Your task to perform on an android device: Toggle the flashlight Image 0: 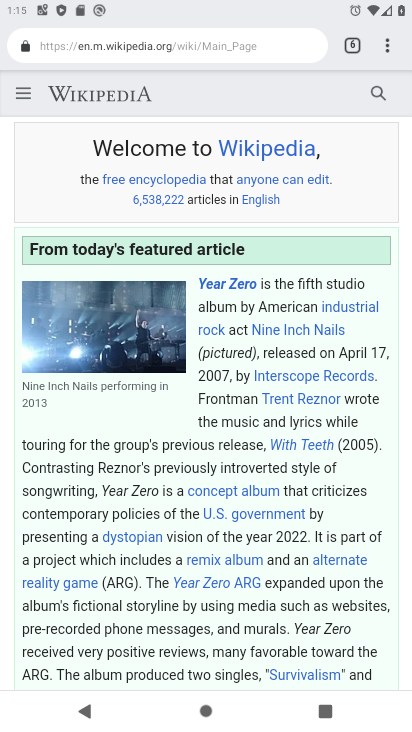
Step 0: click (253, 577)
Your task to perform on an android device: Toggle the flashlight Image 1: 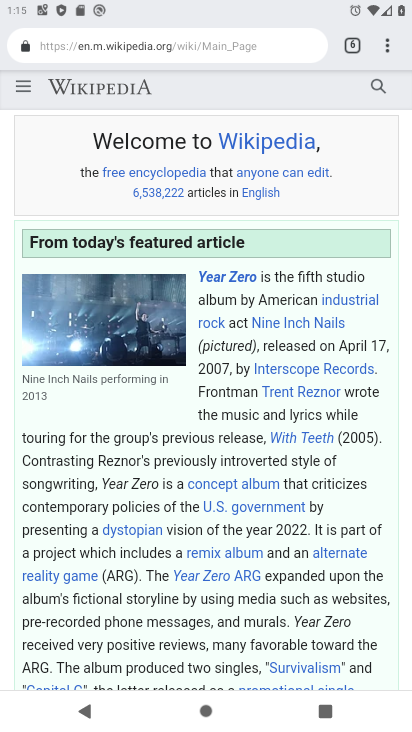
Step 1: press home button
Your task to perform on an android device: Toggle the flashlight Image 2: 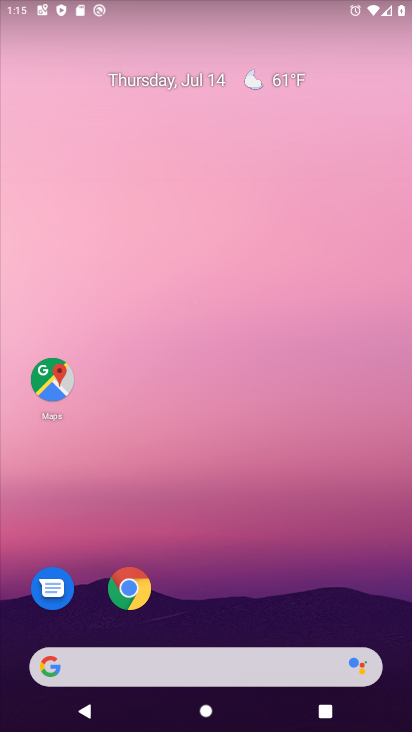
Step 2: drag from (236, 590) to (239, 176)
Your task to perform on an android device: Toggle the flashlight Image 3: 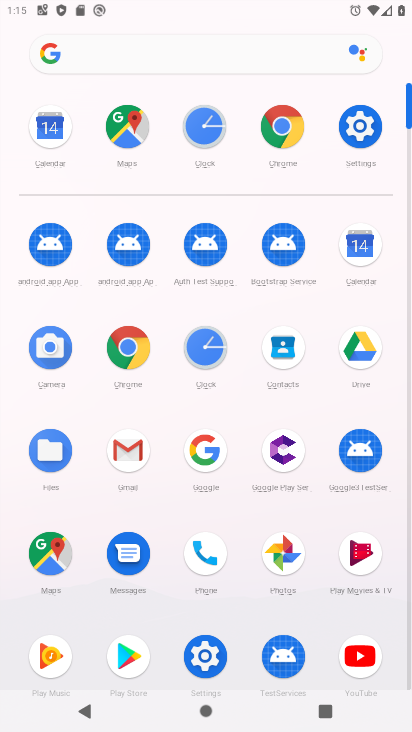
Step 3: click (353, 123)
Your task to perform on an android device: Toggle the flashlight Image 4: 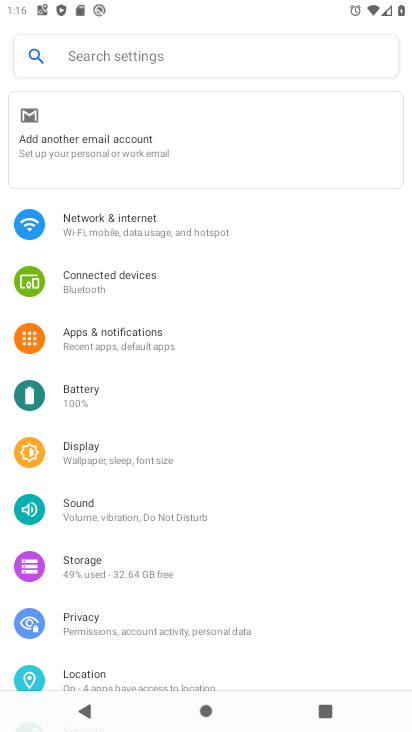
Step 4: task complete